Your task to perform on an android device: turn on the 24-hour format for clock Image 0: 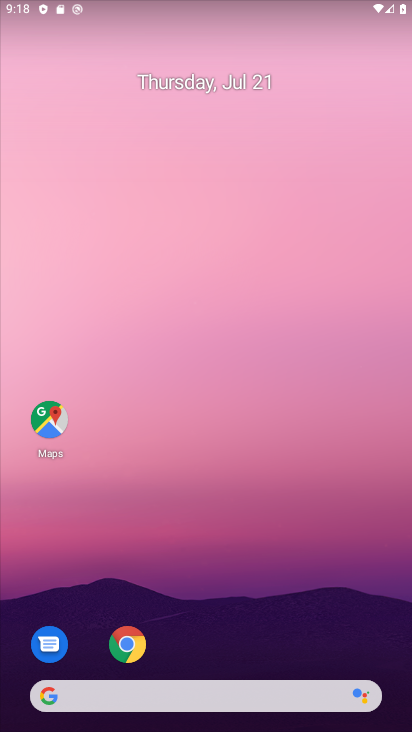
Step 0: drag from (225, 644) to (222, 224)
Your task to perform on an android device: turn on the 24-hour format for clock Image 1: 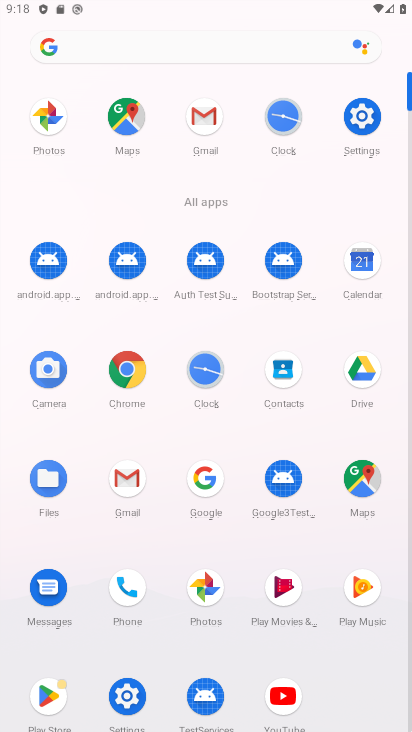
Step 1: click (301, 127)
Your task to perform on an android device: turn on the 24-hour format for clock Image 2: 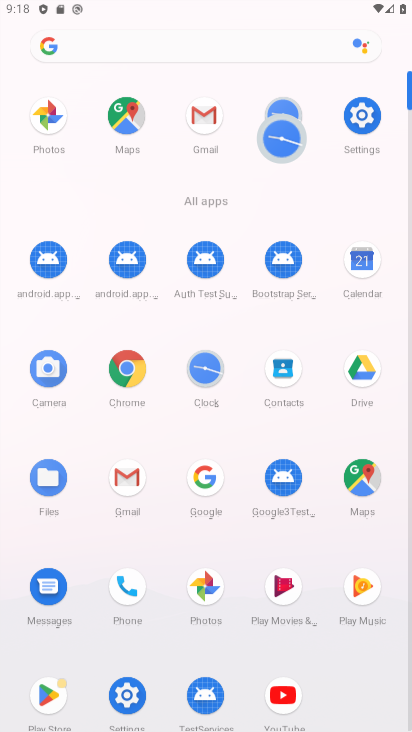
Step 2: task complete